Your task to perform on an android device: Is it going to rain today? Image 0: 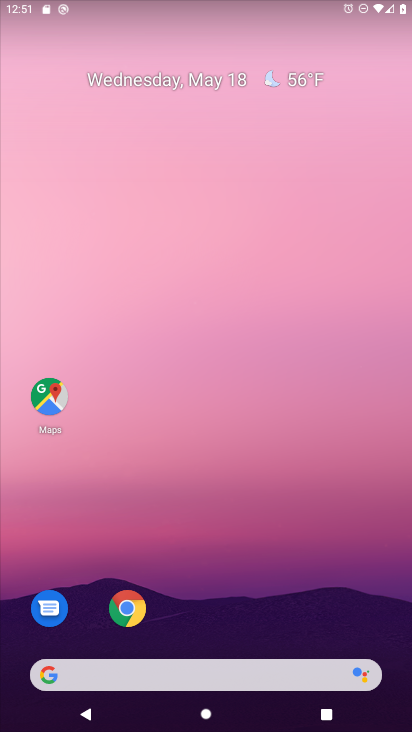
Step 0: drag from (265, 691) to (205, 206)
Your task to perform on an android device: Is it going to rain today? Image 1: 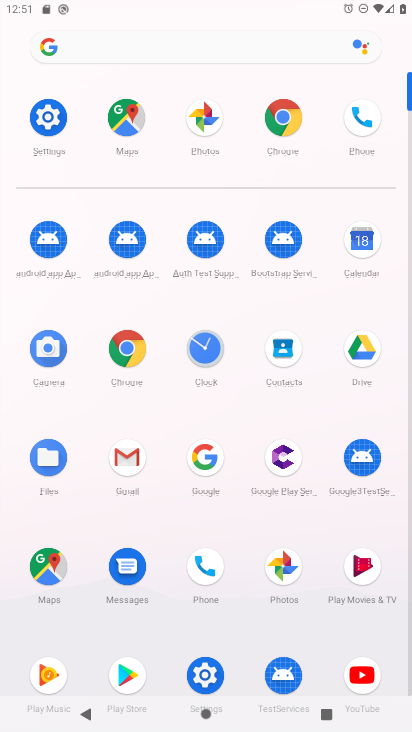
Step 1: click (121, 126)
Your task to perform on an android device: Is it going to rain today? Image 2: 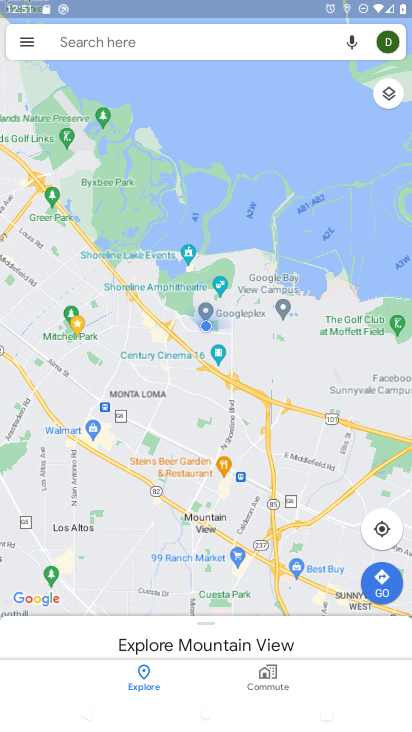
Step 2: click (17, 49)
Your task to perform on an android device: Is it going to rain today? Image 3: 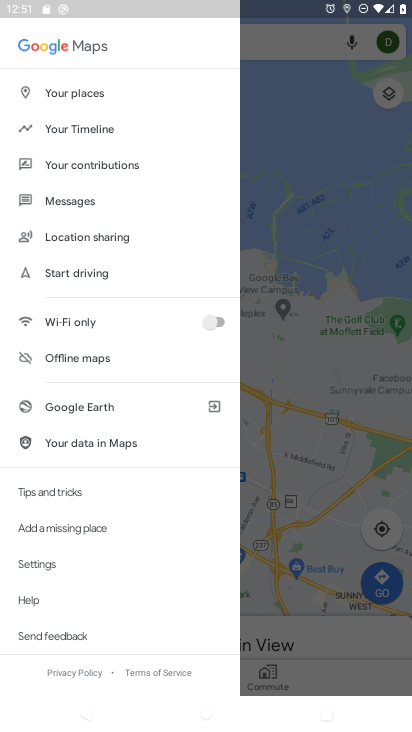
Step 3: press home button
Your task to perform on an android device: Is it going to rain today? Image 4: 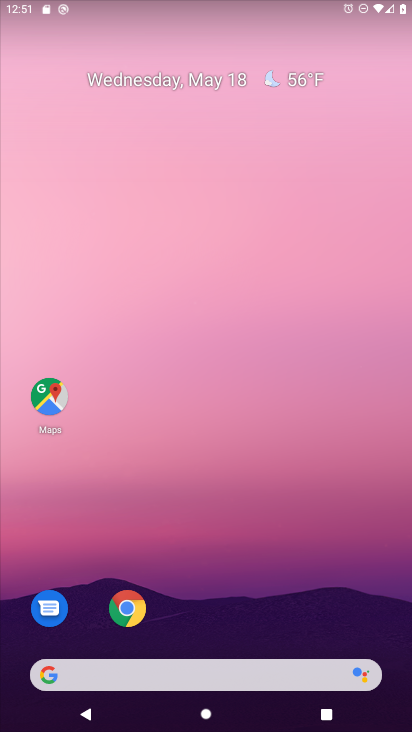
Step 4: drag from (287, 685) to (235, 200)
Your task to perform on an android device: Is it going to rain today? Image 5: 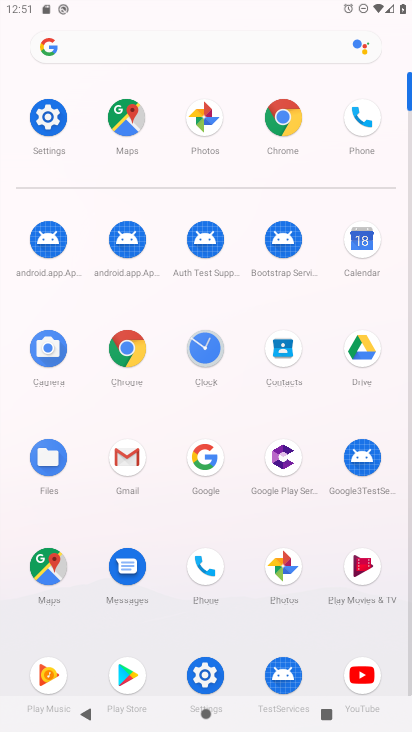
Step 5: click (128, 46)
Your task to perform on an android device: Is it going to rain today? Image 6: 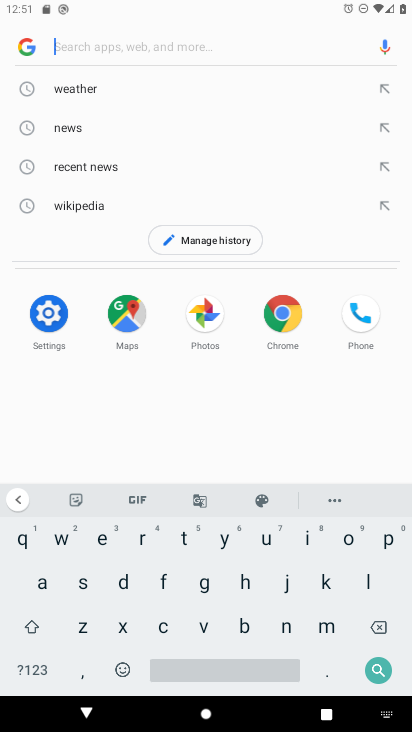
Step 6: click (76, 97)
Your task to perform on an android device: Is it going to rain today? Image 7: 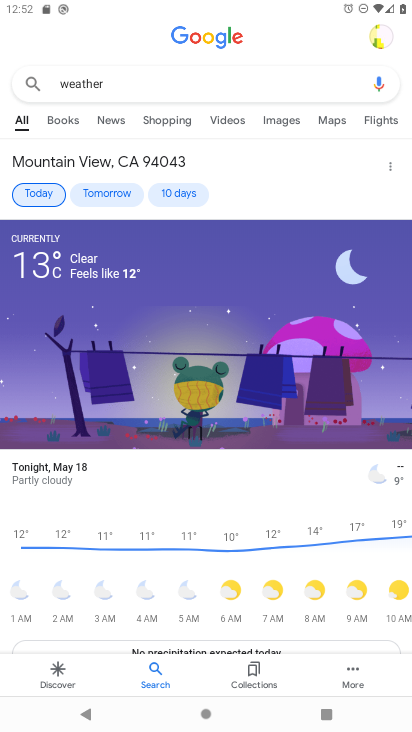
Step 7: task complete